Your task to perform on an android device: Open accessibility settings Image 0: 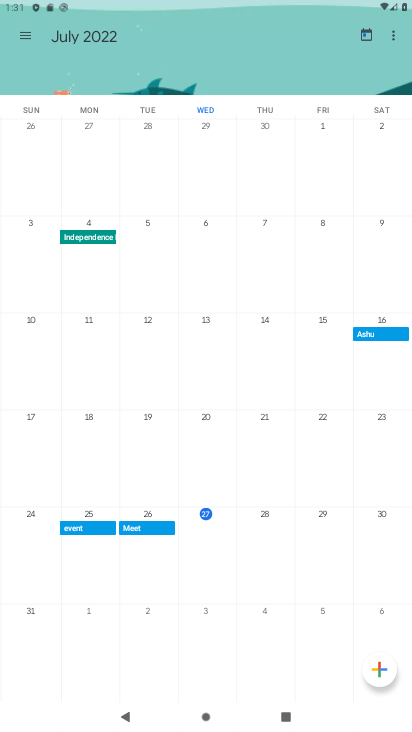
Step 0: press home button
Your task to perform on an android device: Open accessibility settings Image 1: 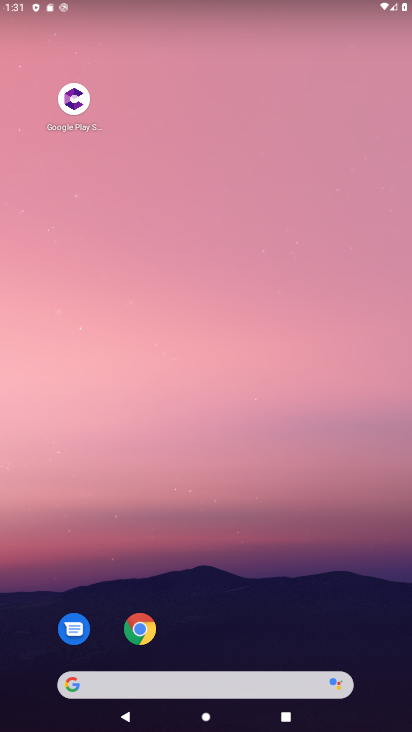
Step 1: drag from (226, 617) to (204, 91)
Your task to perform on an android device: Open accessibility settings Image 2: 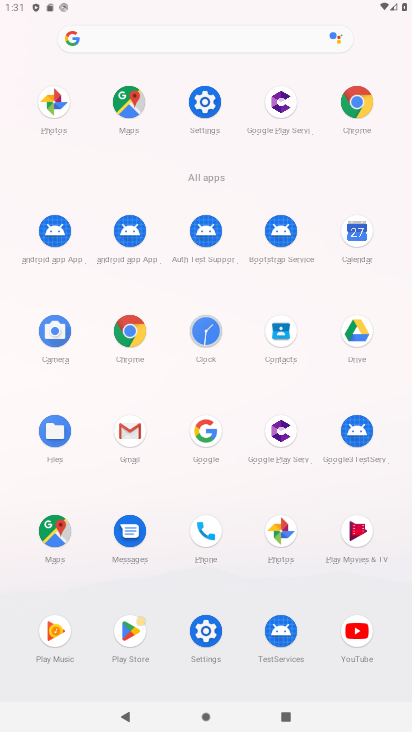
Step 2: click (187, 114)
Your task to perform on an android device: Open accessibility settings Image 3: 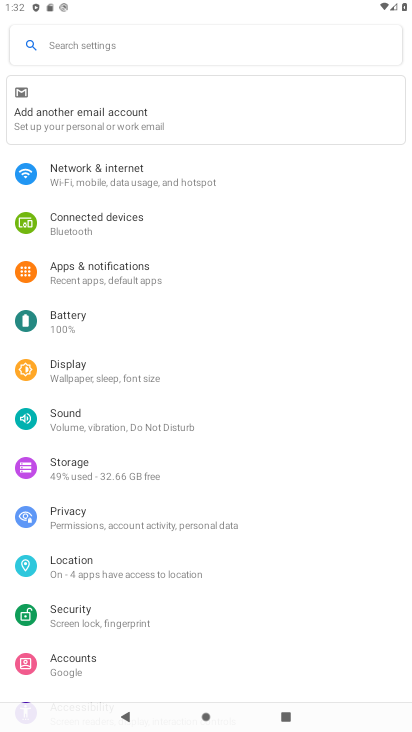
Step 3: drag from (155, 665) to (142, 363)
Your task to perform on an android device: Open accessibility settings Image 4: 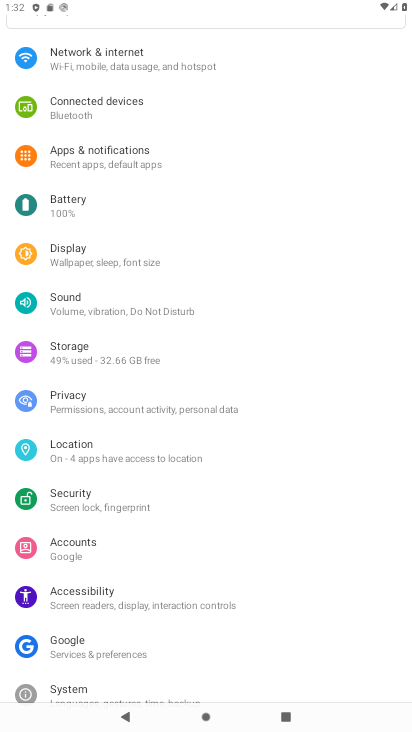
Step 4: click (102, 597)
Your task to perform on an android device: Open accessibility settings Image 5: 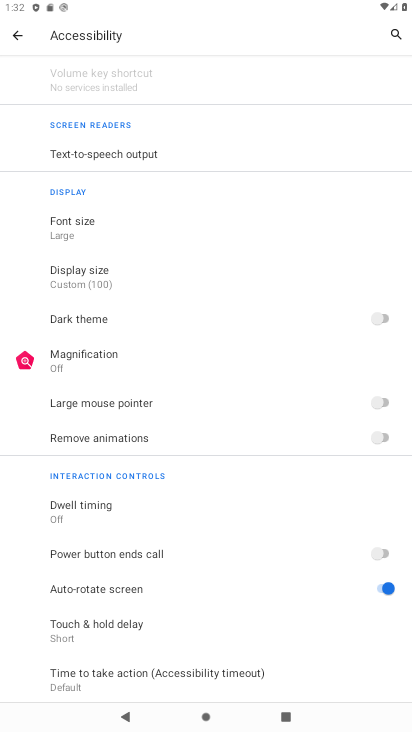
Step 5: task complete